Your task to perform on an android device: Go to Yahoo.com Image 0: 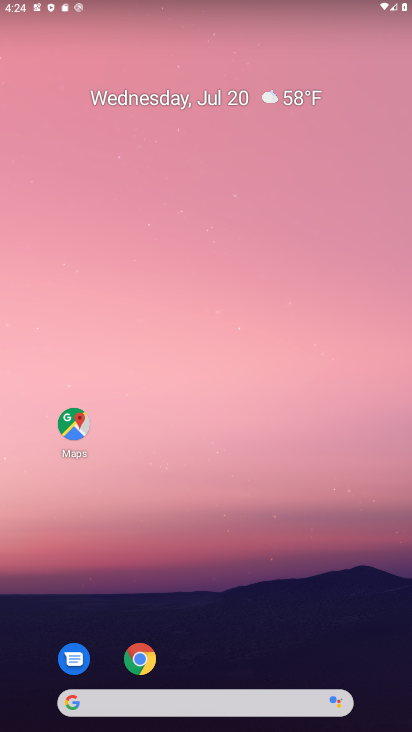
Step 0: drag from (231, 568) to (176, 89)
Your task to perform on an android device: Go to Yahoo.com Image 1: 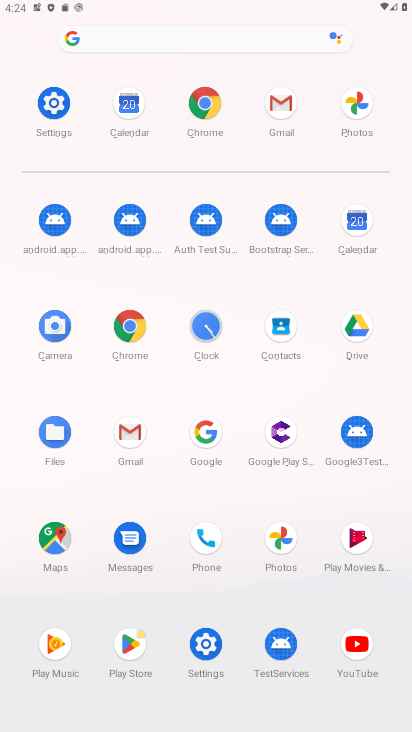
Step 1: click (47, 110)
Your task to perform on an android device: Go to Yahoo.com Image 2: 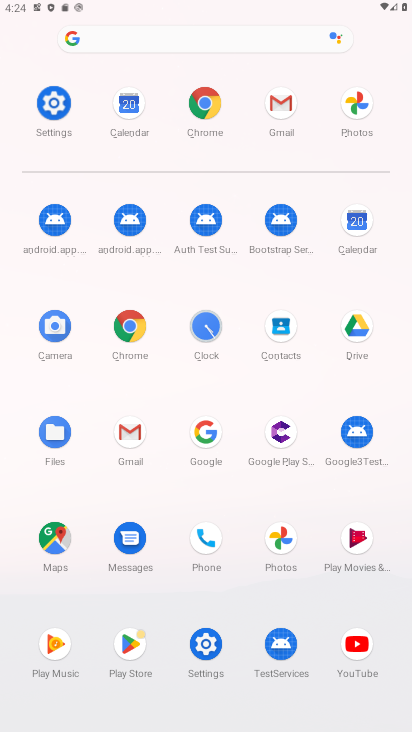
Step 2: click (48, 109)
Your task to perform on an android device: Go to Yahoo.com Image 3: 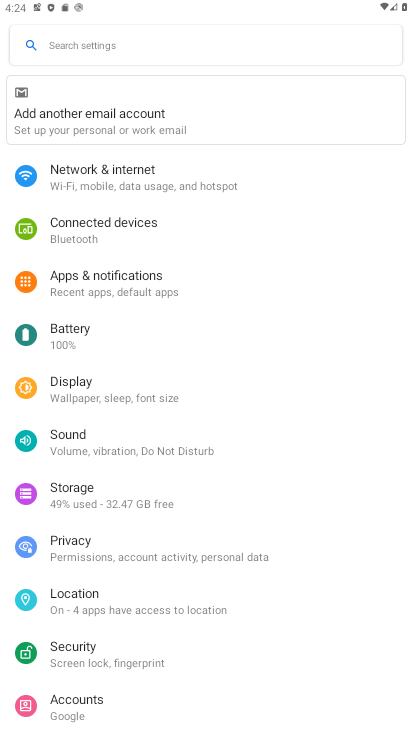
Step 3: drag from (115, 575) to (109, 152)
Your task to perform on an android device: Go to Yahoo.com Image 4: 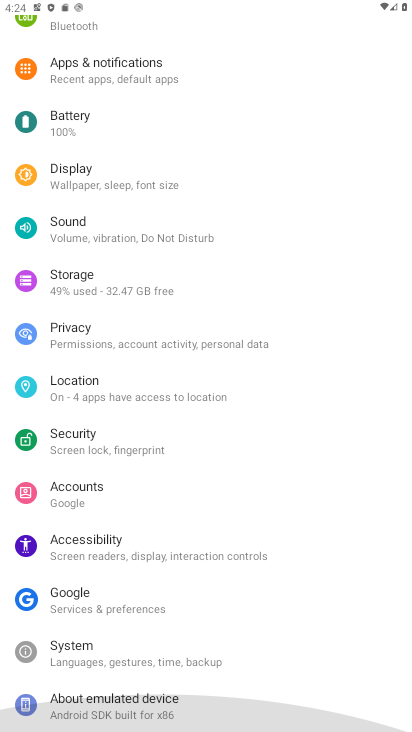
Step 4: drag from (106, 476) to (95, 202)
Your task to perform on an android device: Go to Yahoo.com Image 5: 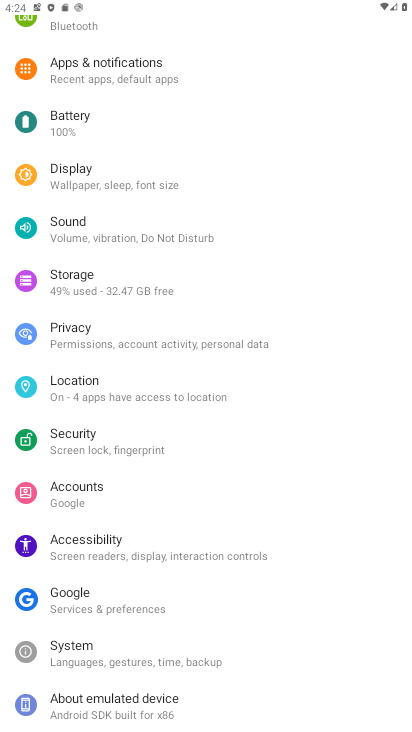
Step 5: press back button
Your task to perform on an android device: Go to Yahoo.com Image 6: 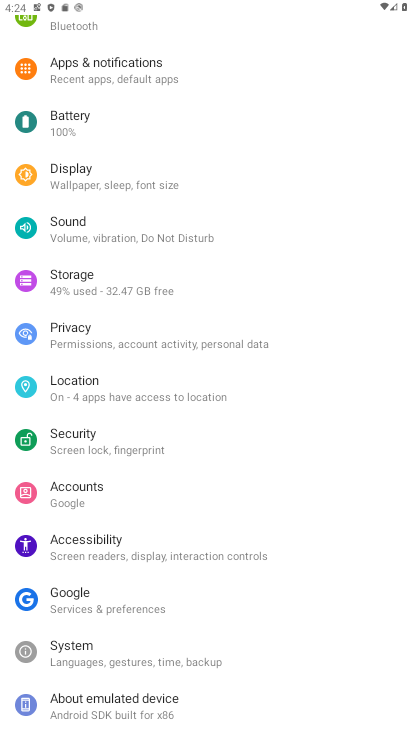
Step 6: press back button
Your task to perform on an android device: Go to Yahoo.com Image 7: 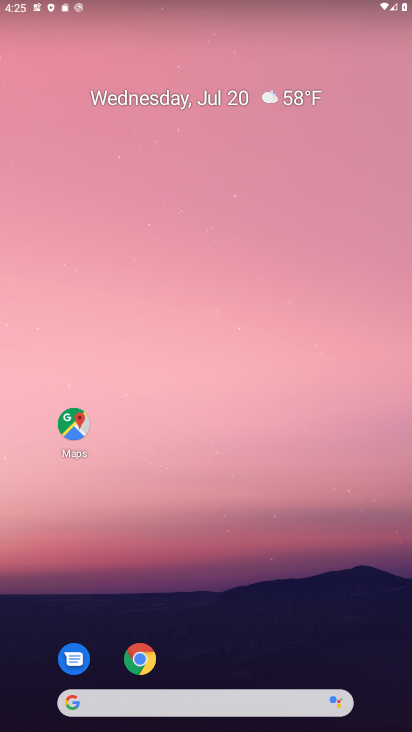
Step 7: drag from (223, 581) to (198, 66)
Your task to perform on an android device: Go to Yahoo.com Image 8: 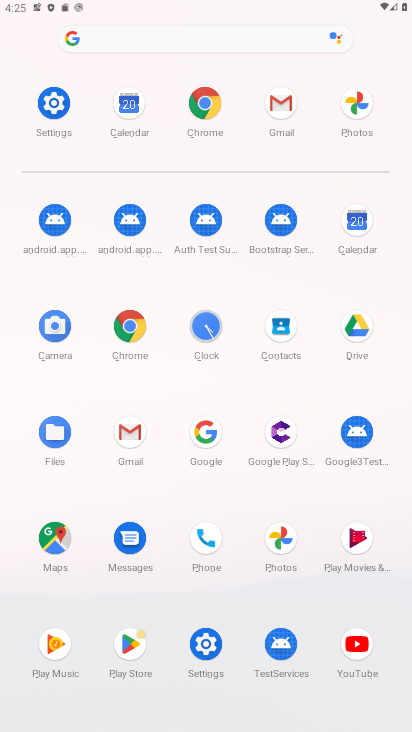
Step 8: click (205, 101)
Your task to perform on an android device: Go to Yahoo.com Image 9: 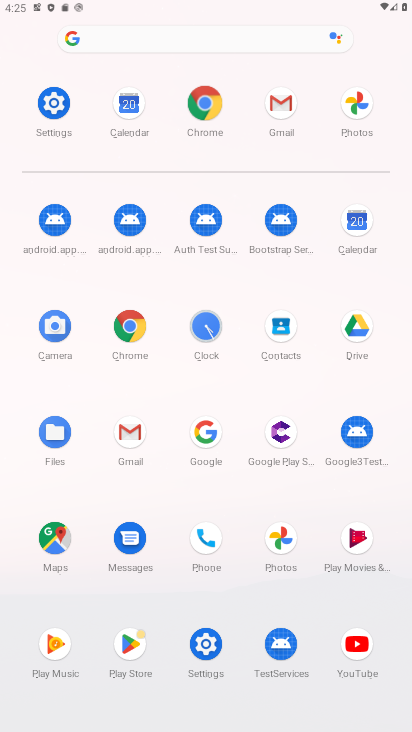
Step 9: click (205, 101)
Your task to perform on an android device: Go to Yahoo.com Image 10: 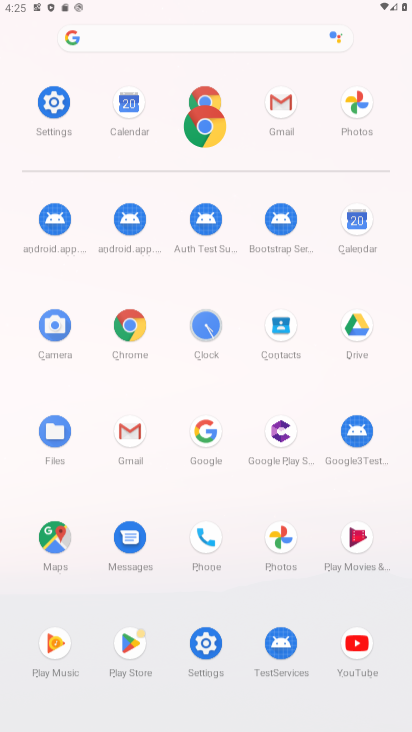
Step 10: click (205, 101)
Your task to perform on an android device: Go to Yahoo.com Image 11: 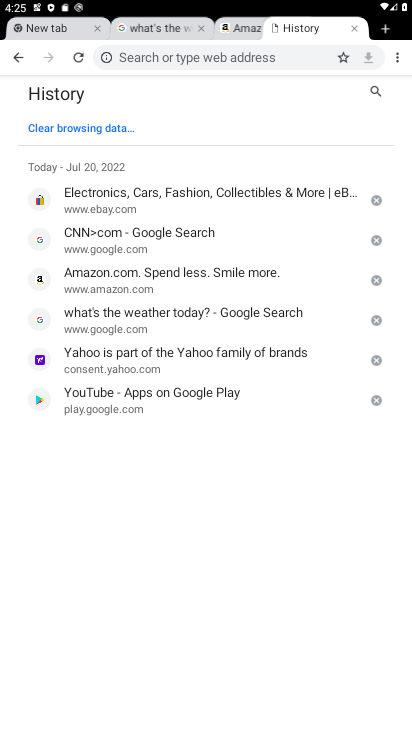
Step 11: drag from (397, 61) to (268, 53)
Your task to perform on an android device: Go to Yahoo.com Image 12: 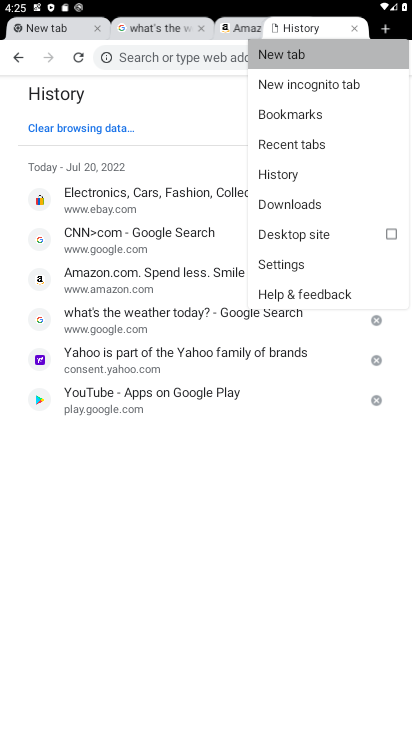
Step 12: click (272, 53)
Your task to perform on an android device: Go to Yahoo.com Image 13: 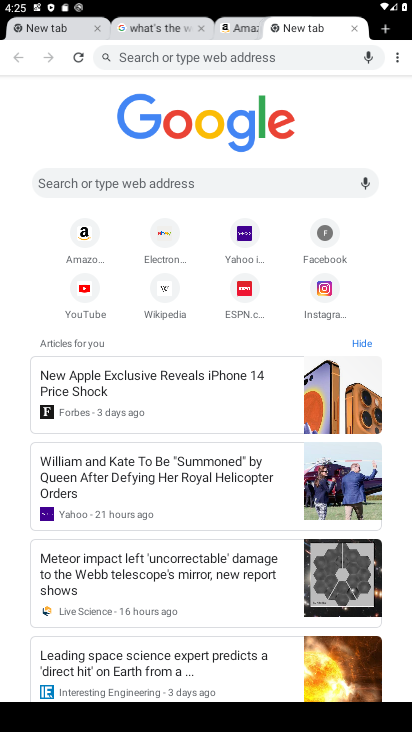
Step 13: click (252, 234)
Your task to perform on an android device: Go to Yahoo.com Image 14: 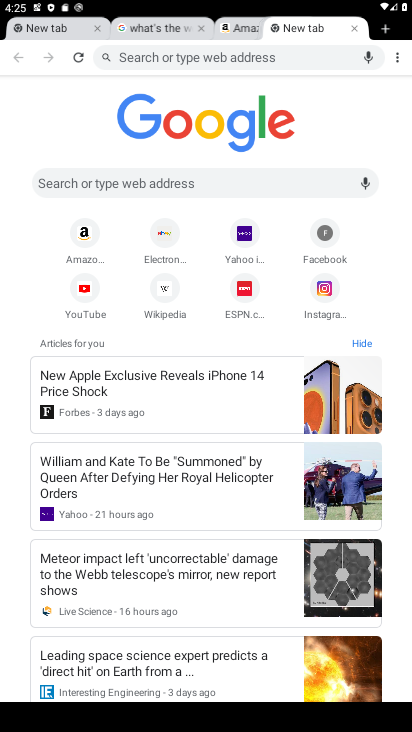
Step 14: click (251, 234)
Your task to perform on an android device: Go to Yahoo.com Image 15: 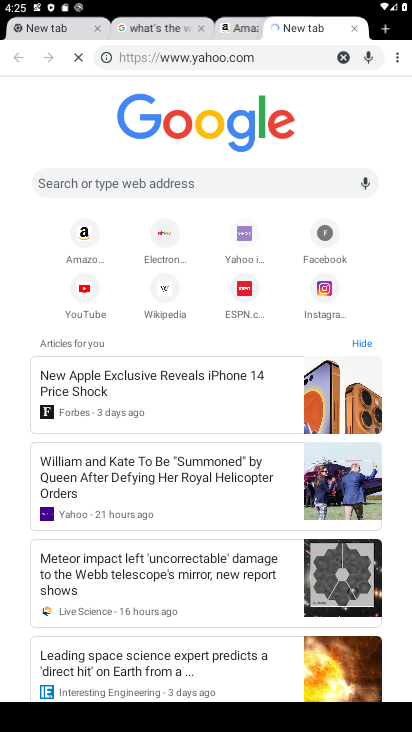
Step 15: click (251, 234)
Your task to perform on an android device: Go to Yahoo.com Image 16: 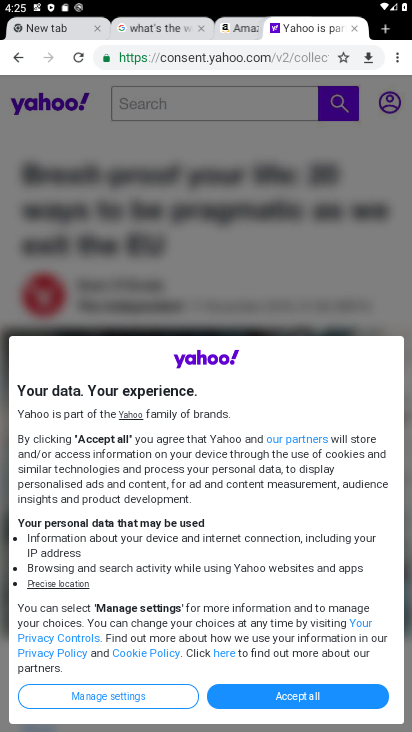
Step 16: task complete